Your task to perform on an android device: Go to Amazon Image 0: 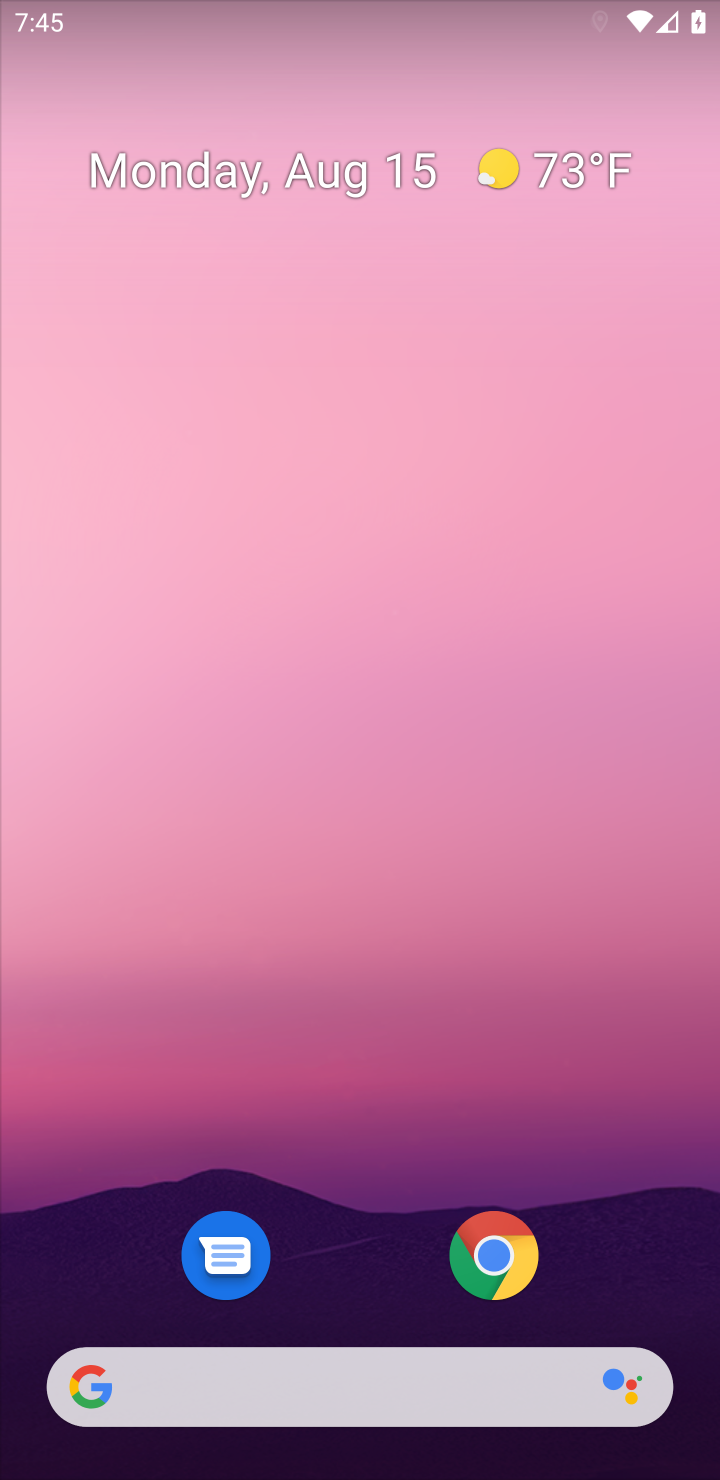
Step 0: press home button
Your task to perform on an android device: Go to Amazon Image 1: 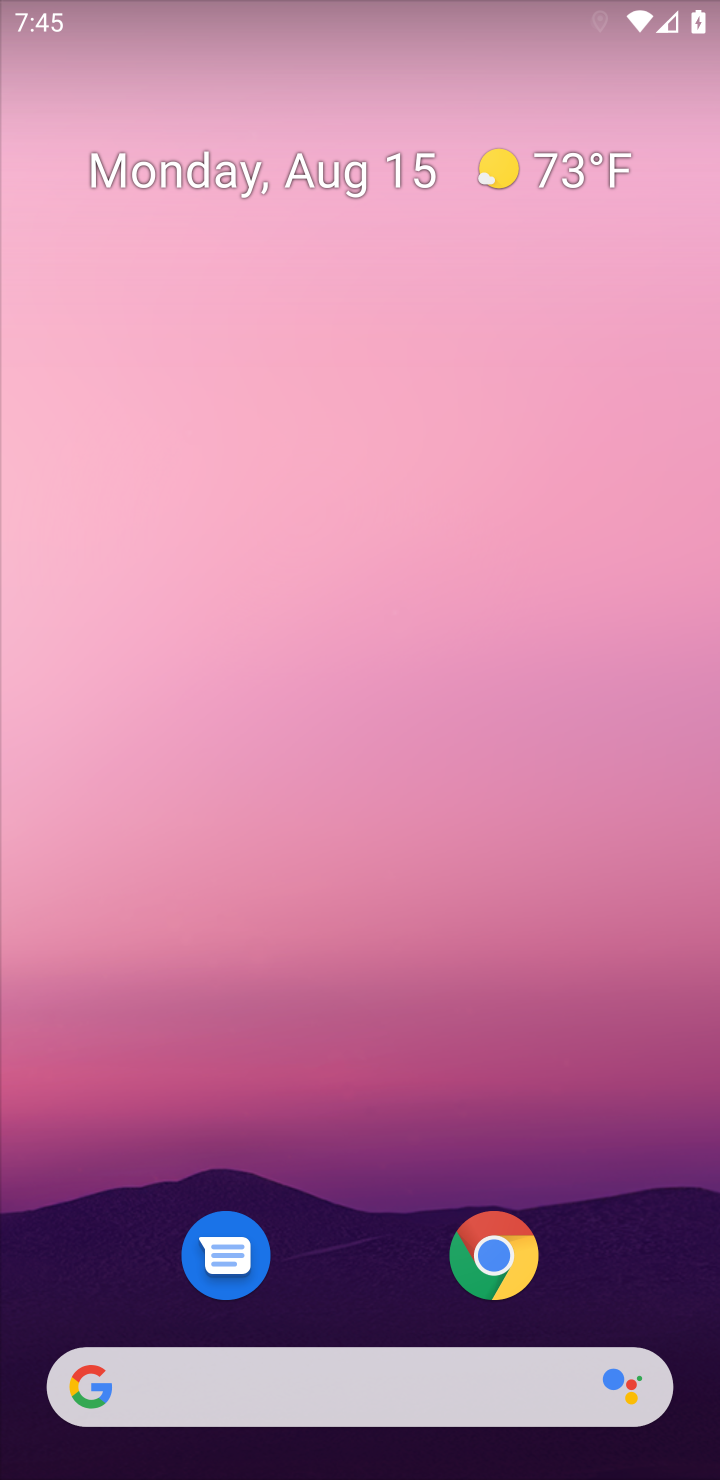
Step 1: drag from (362, 1324) to (324, 7)
Your task to perform on an android device: Go to Amazon Image 2: 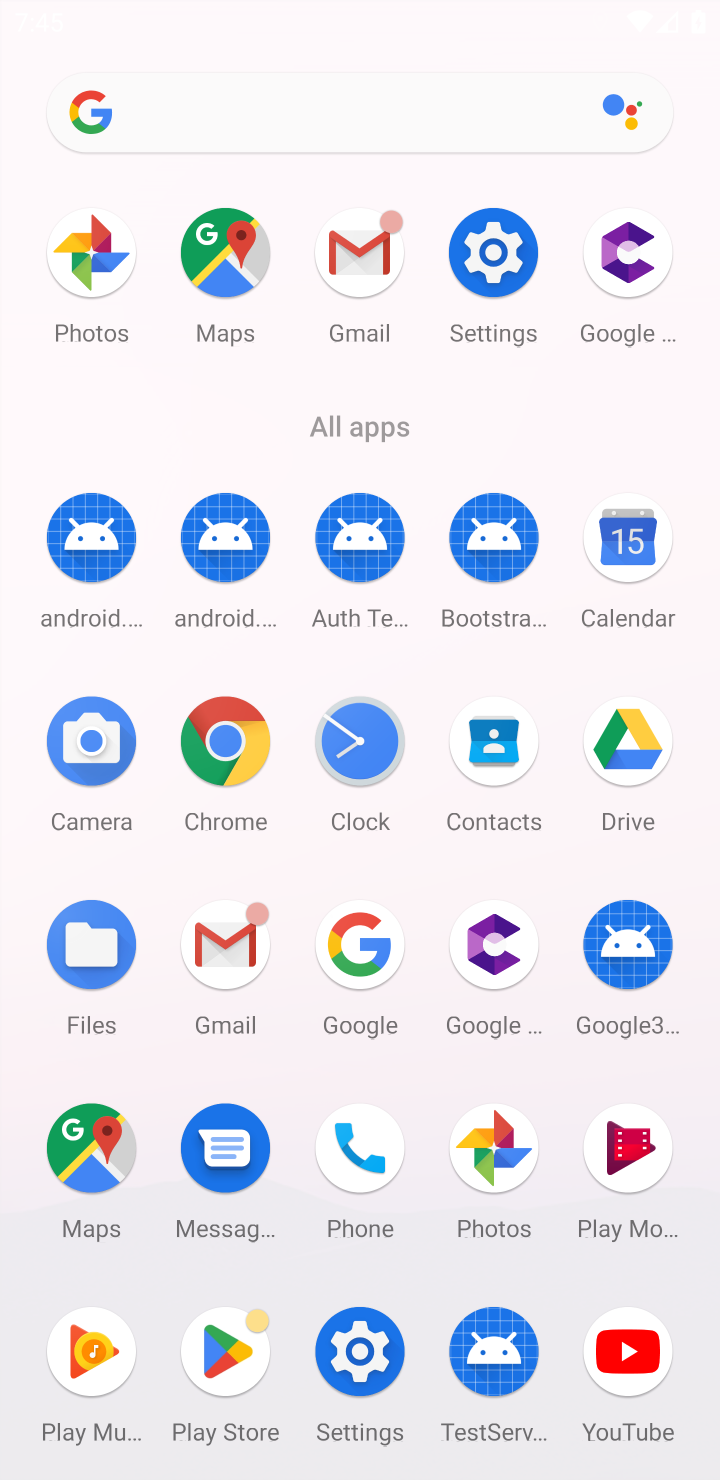
Step 2: click (219, 730)
Your task to perform on an android device: Go to Amazon Image 3: 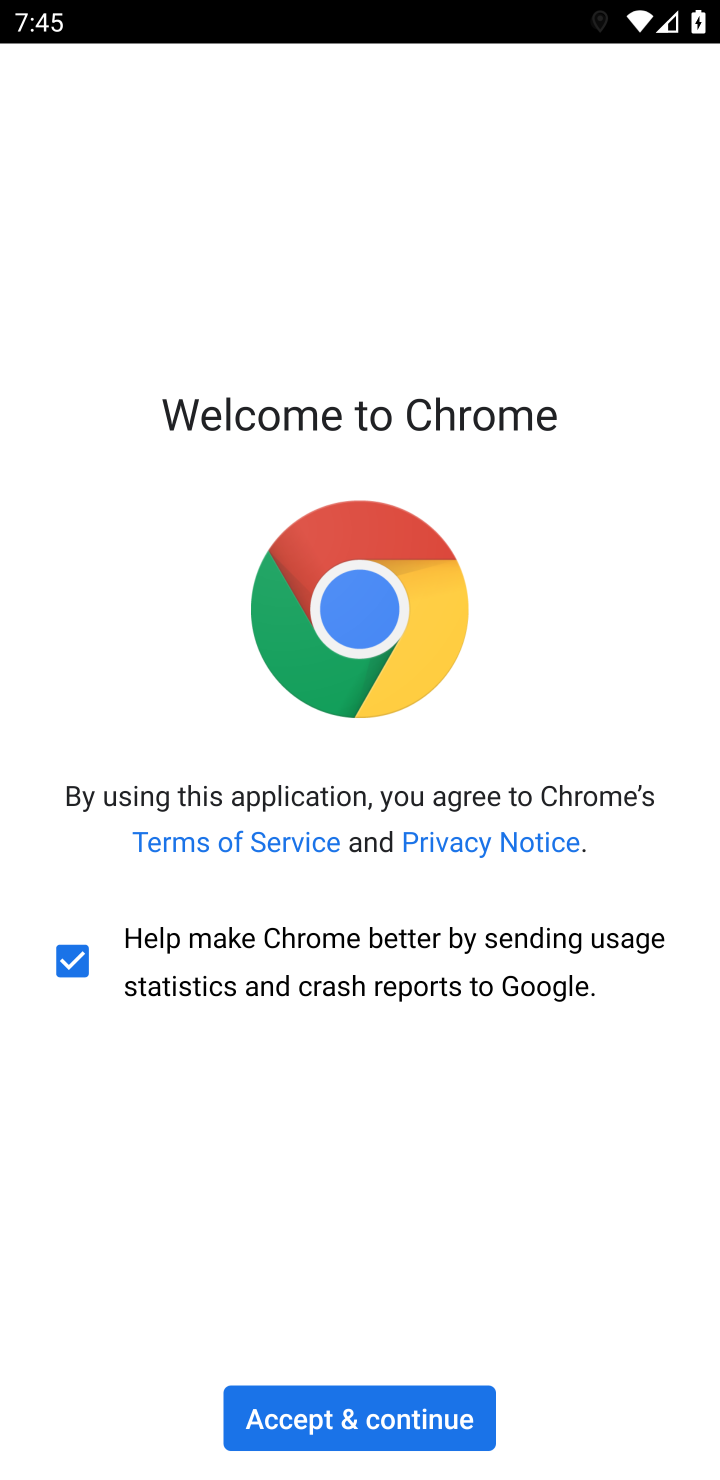
Step 3: click (343, 1408)
Your task to perform on an android device: Go to Amazon Image 4: 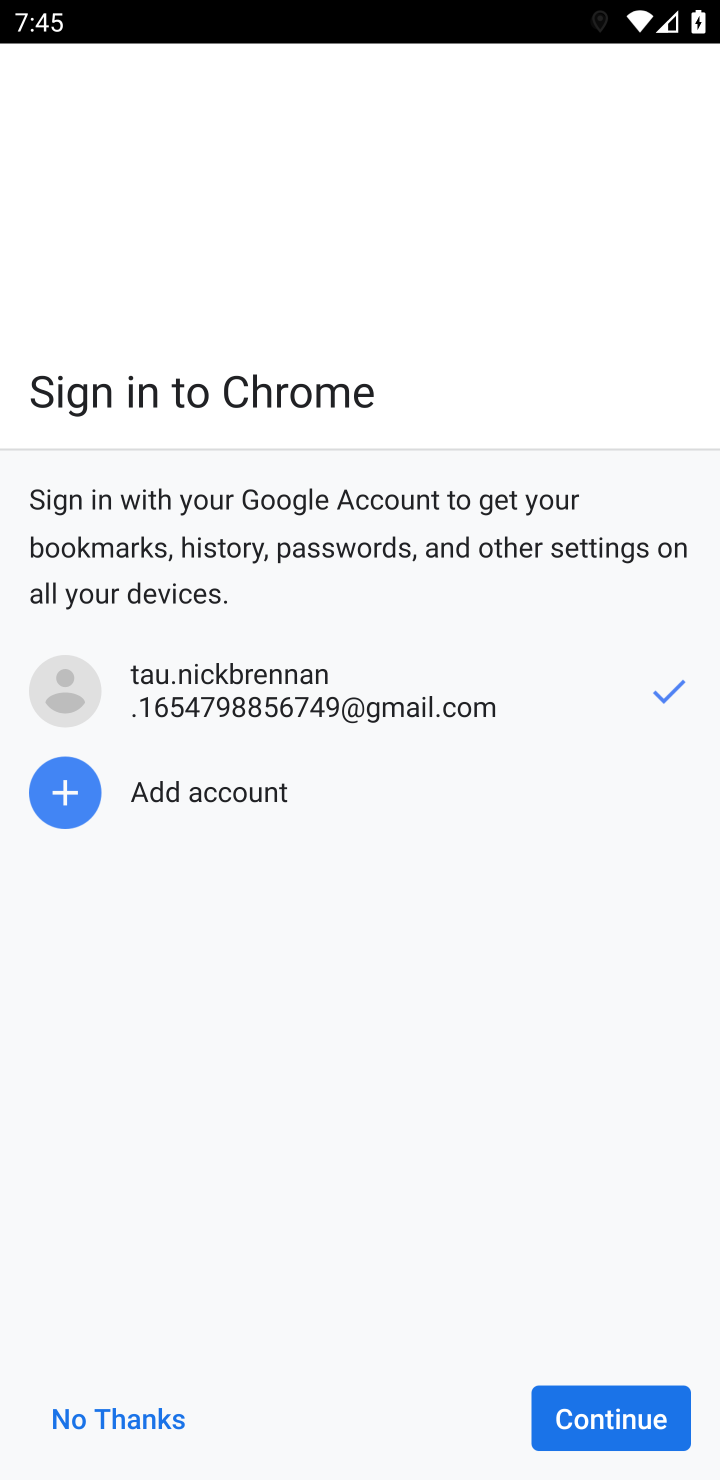
Step 4: click (608, 1415)
Your task to perform on an android device: Go to Amazon Image 5: 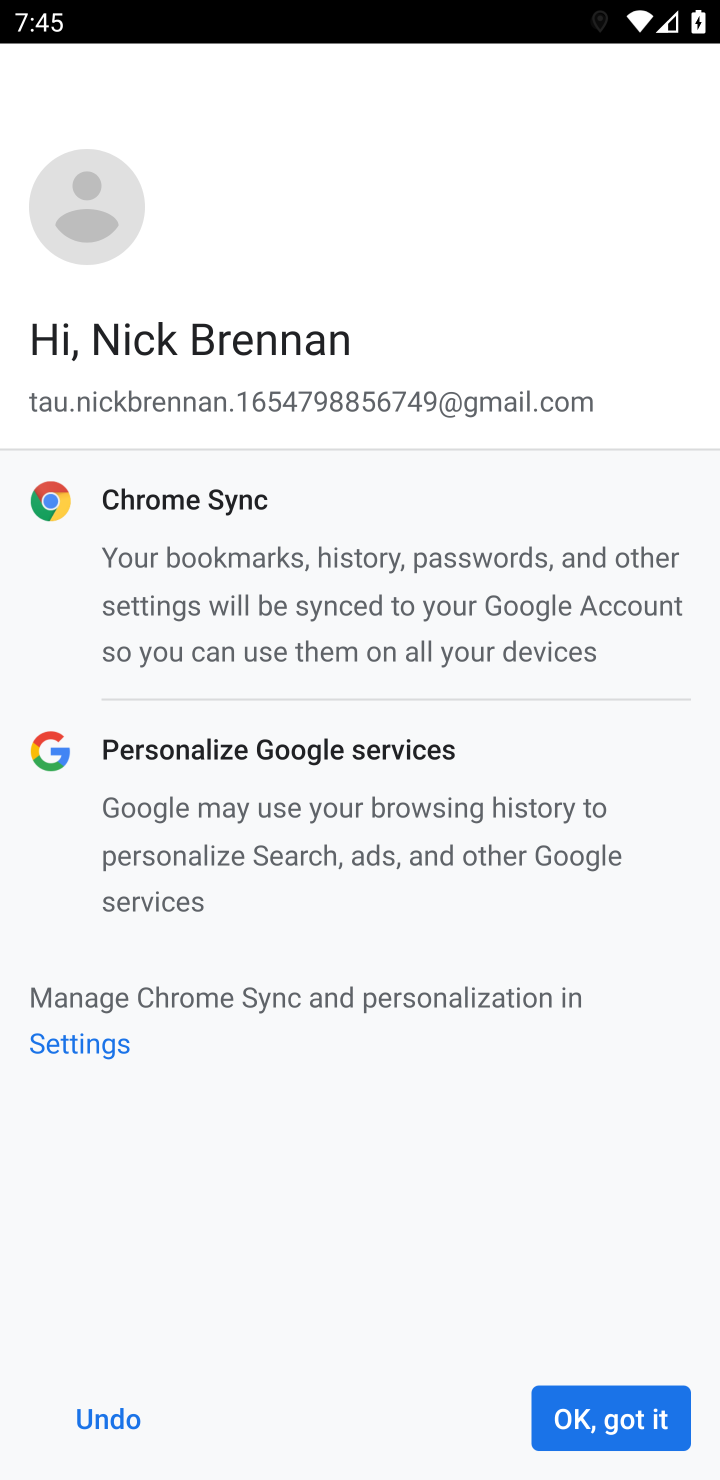
Step 5: click (608, 1415)
Your task to perform on an android device: Go to Amazon Image 6: 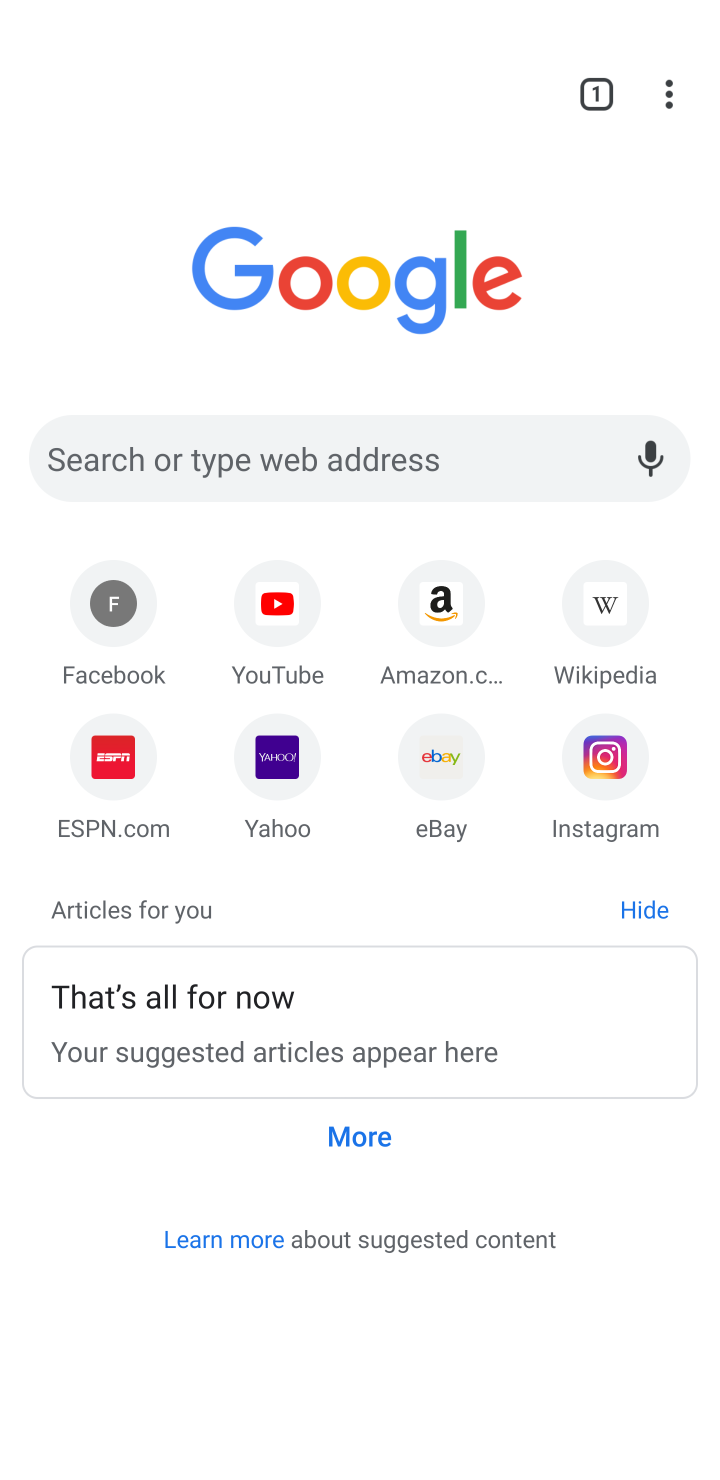
Step 6: click (435, 591)
Your task to perform on an android device: Go to Amazon Image 7: 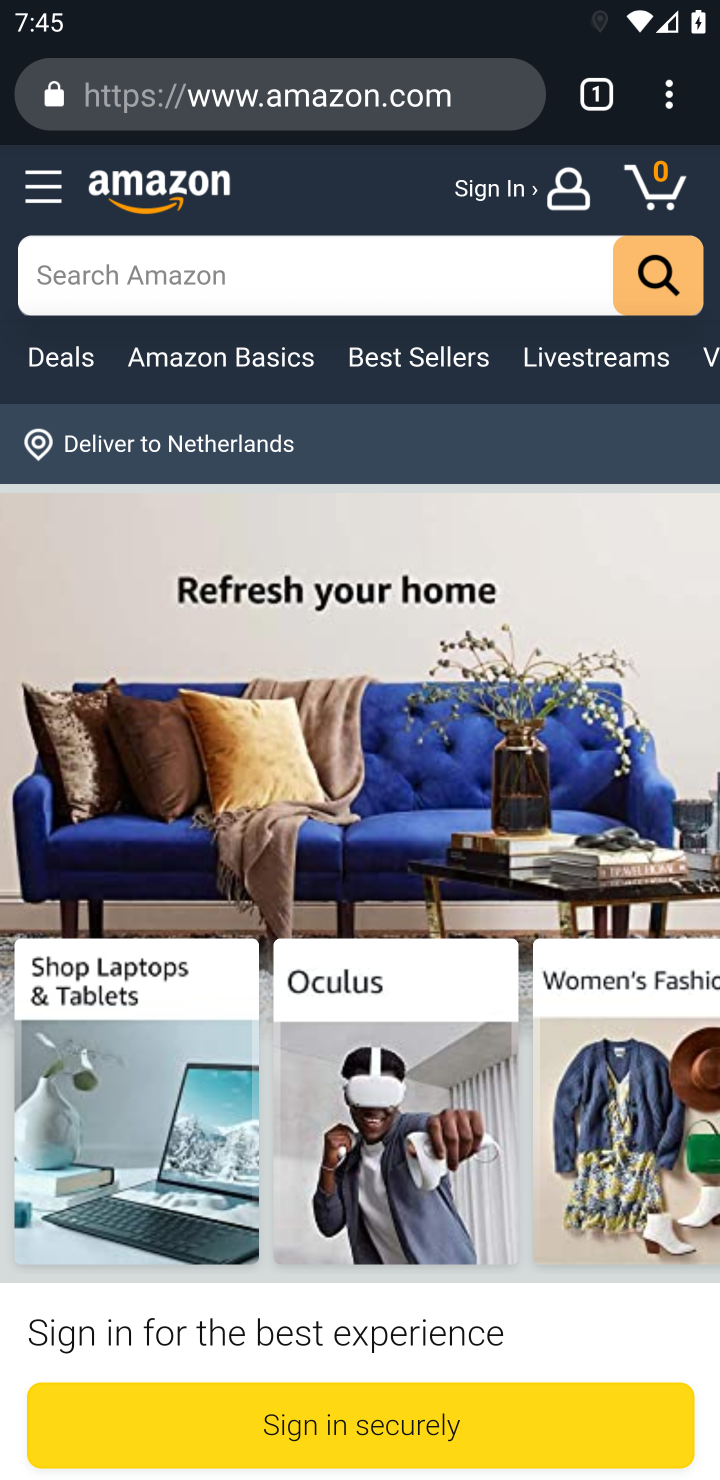
Step 7: drag from (553, 1211) to (567, 106)
Your task to perform on an android device: Go to Amazon Image 8: 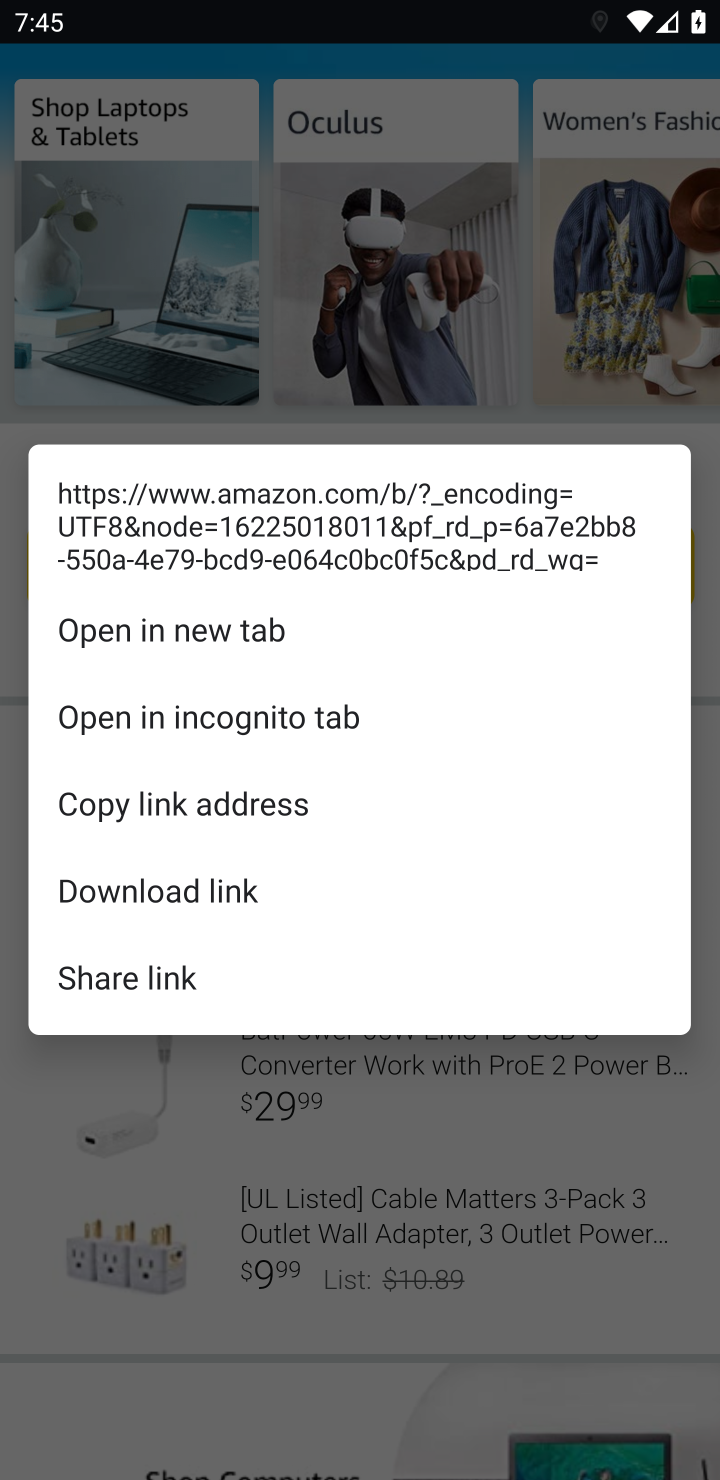
Step 8: click (325, 1187)
Your task to perform on an android device: Go to Amazon Image 9: 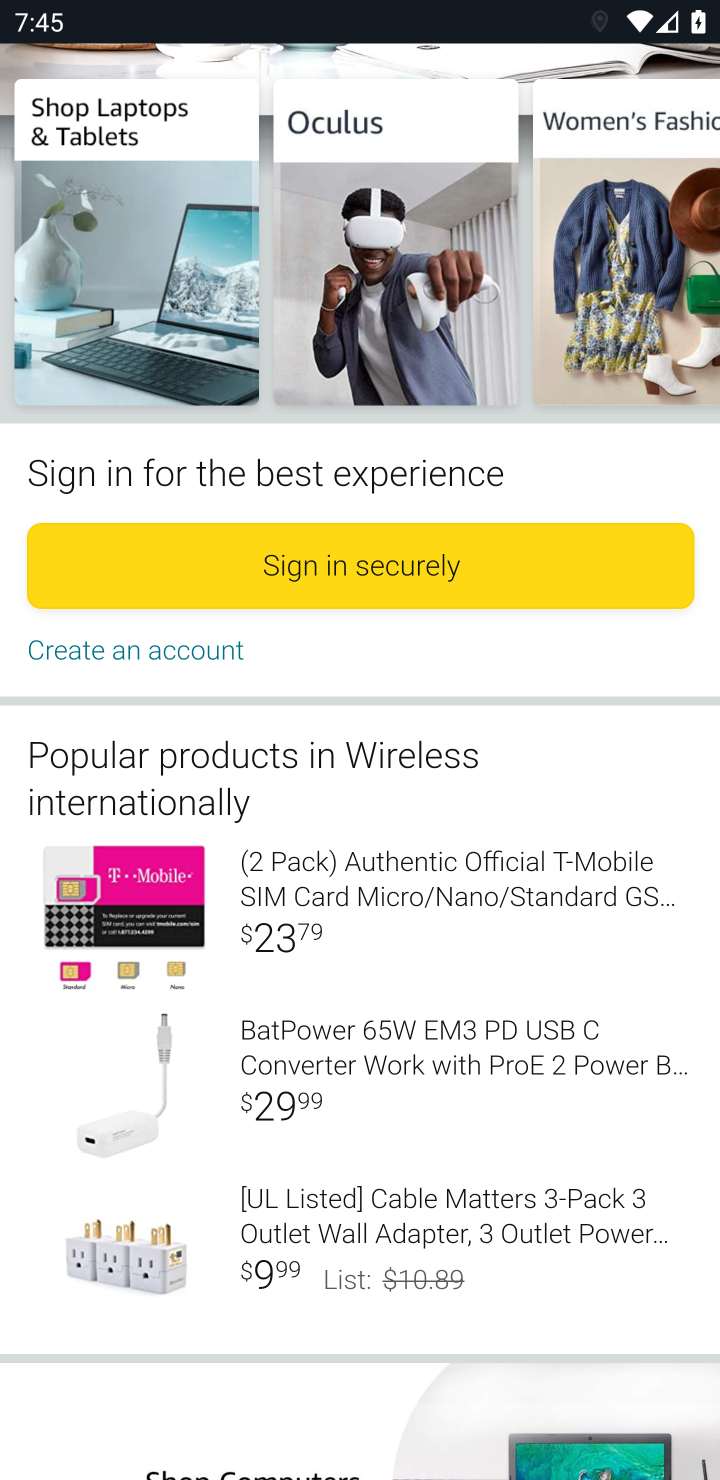
Step 9: task complete